Your task to perform on an android device: Is it going to rain tomorrow? Image 0: 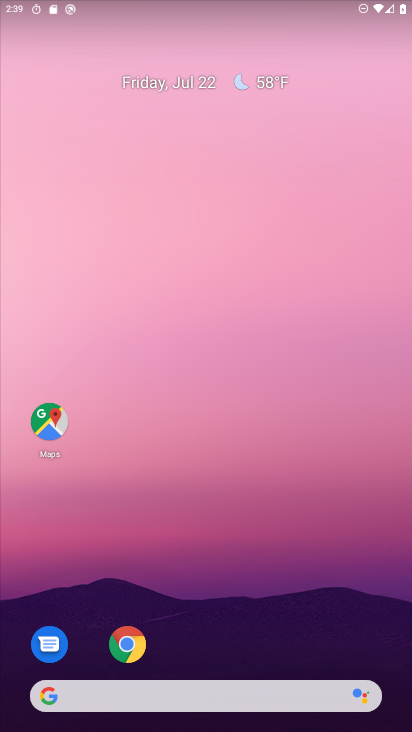
Step 0: drag from (196, 636) to (193, 257)
Your task to perform on an android device: Is it going to rain tomorrow? Image 1: 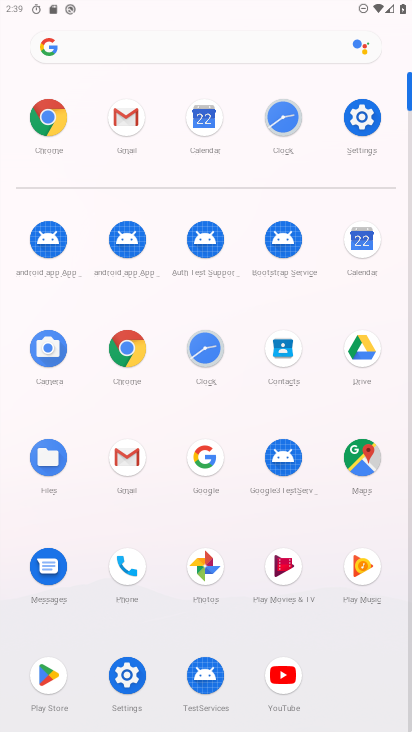
Step 1: click (216, 449)
Your task to perform on an android device: Is it going to rain tomorrow? Image 2: 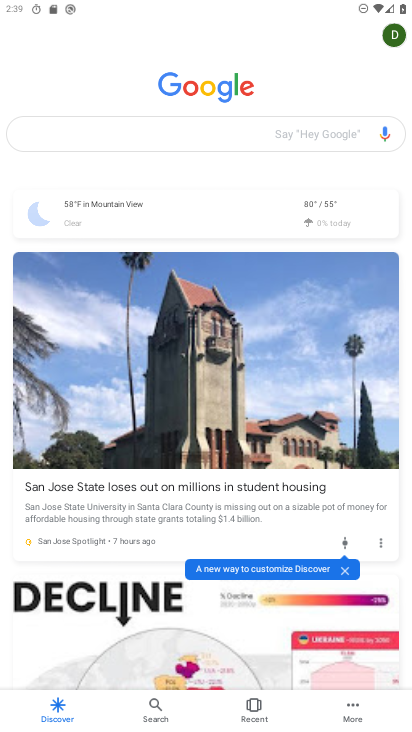
Step 2: click (93, 134)
Your task to perform on an android device: Is it going to rain tomorrow? Image 3: 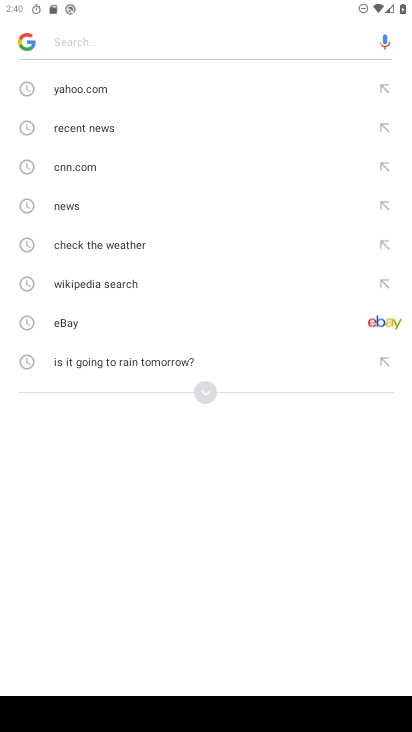
Step 3: type "weather"
Your task to perform on an android device: Is it going to rain tomorrow? Image 4: 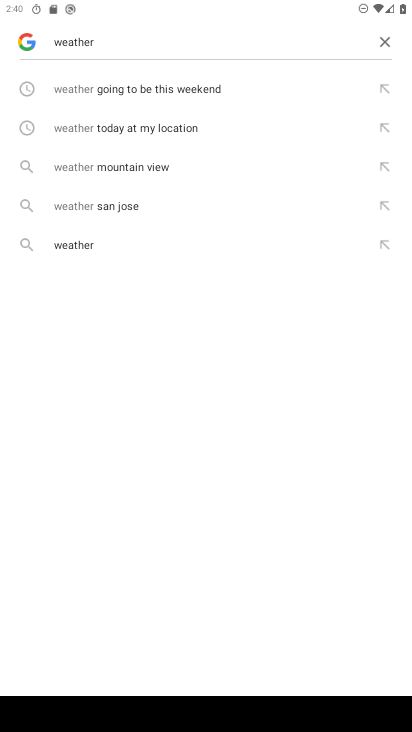
Step 4: click (141, 240)
Your task to perform on an android device: Is it going to rain tomorrow? Image 5: 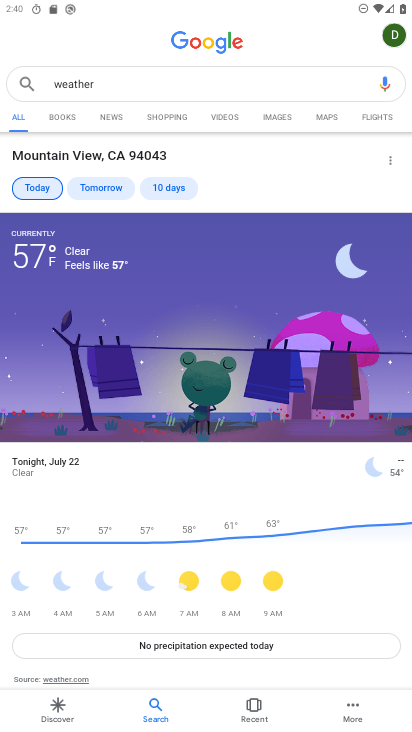
Step 5: click (107, 191)
Your task to perform on an android device: Is it going to rain tomorrow? Image 6: 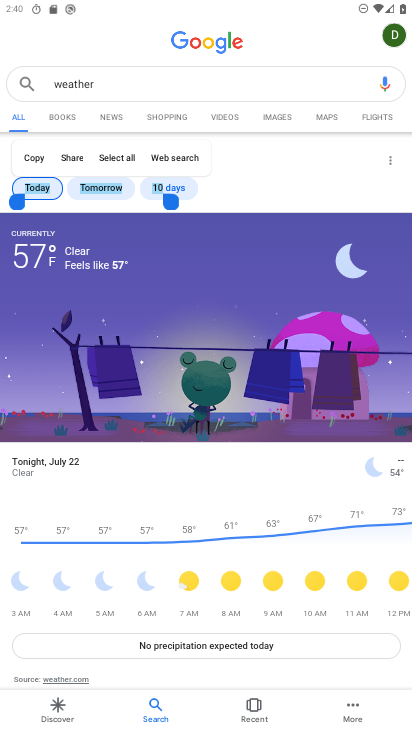
Step 6: click (117, 181)
Your task to perform on an android device: Is it going to rain tomorrow? Image 7: 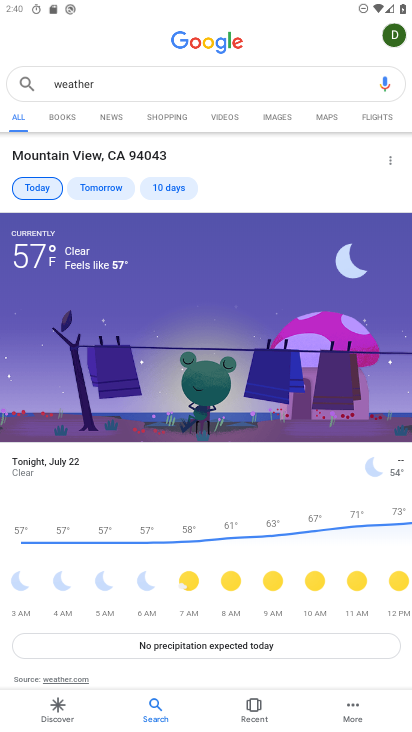
Step 7: click (116, 188)
Your task to perform on an android device: Is it going to rain tomorrow? Image 8: 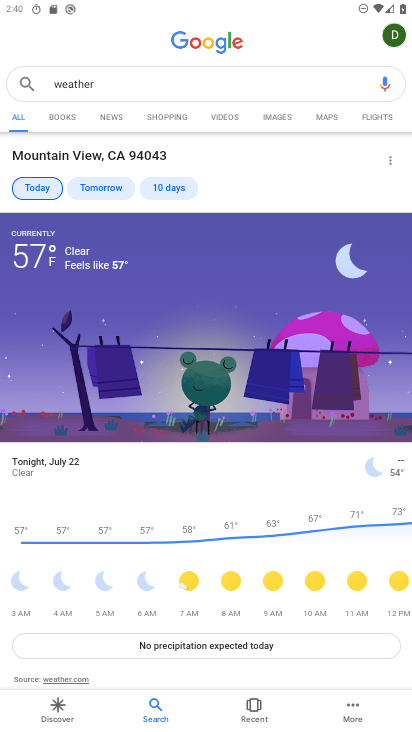
Step 8: click (115, 177)
Your task to perform on an android device: Is it going to rain tomorrow? Image 9: 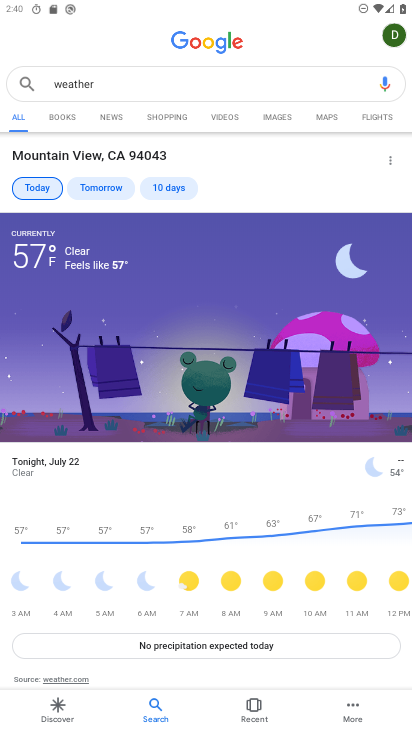
Step 9: click (113, 178)
Your task to perform on an android device: Is it going to rain tomorrow? Image 10: 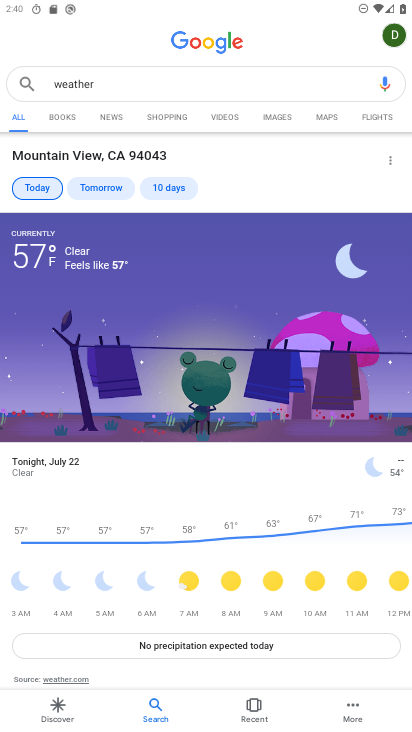
Step 10: task complete